Your task to perform on an android device: What's on the menu at Burger King? Image 0: 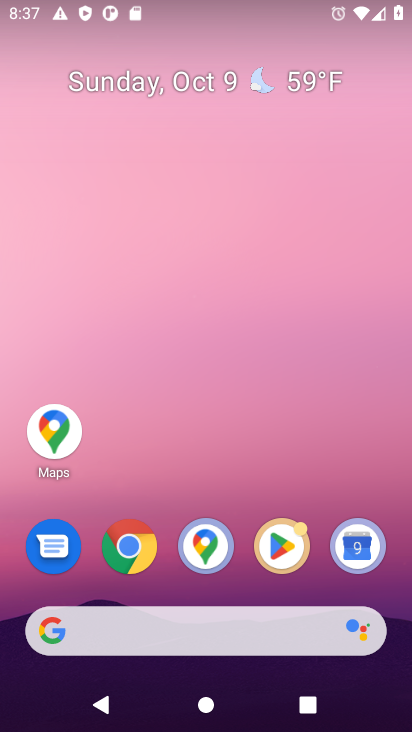
Step 0: click (139, 545)
Your task to perform on an android device: What's on the menu at Burger King? Image 1: 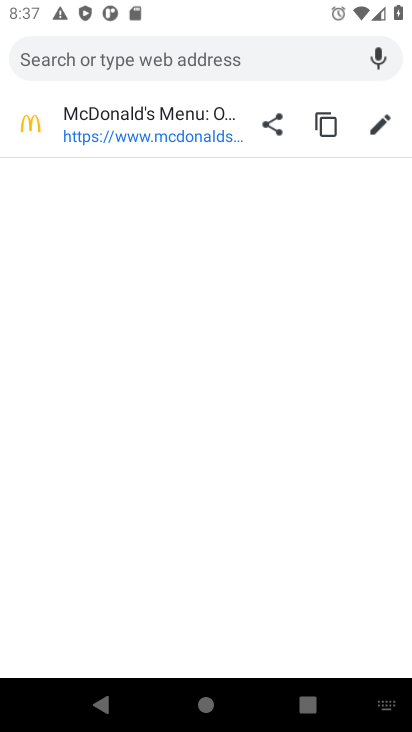
Step 1: click (143, 58)
Your task to perform on an android device: What's on the menu at Burger King? Image 2: 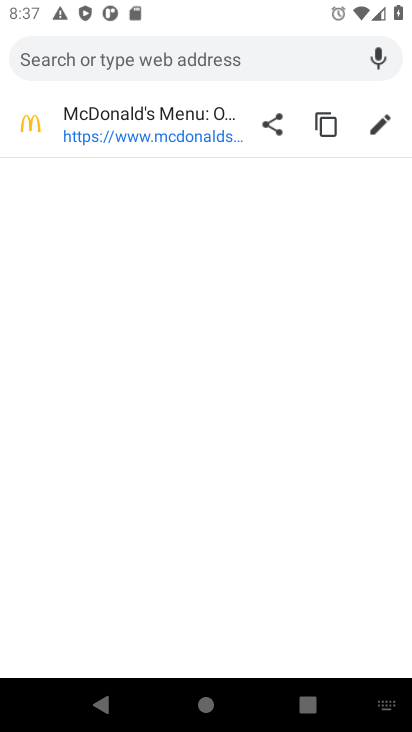
Step 2: type "burger king menu"
Your task to perform on an android device: What's on the menu at Burger King? Image 3: 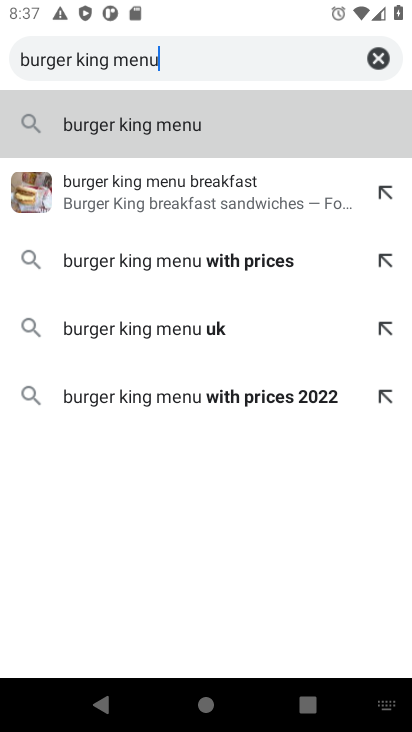
Step 3: press enter
Your task to perform on an android device: What's on the menu at Burger King? Image 4: 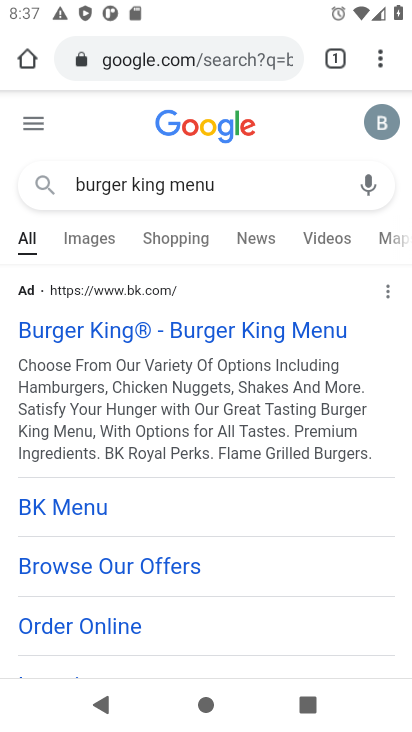
Step 4: click (278, 330)
Your task to perform on an android device: What's on the menu at Burger King? Image 5: 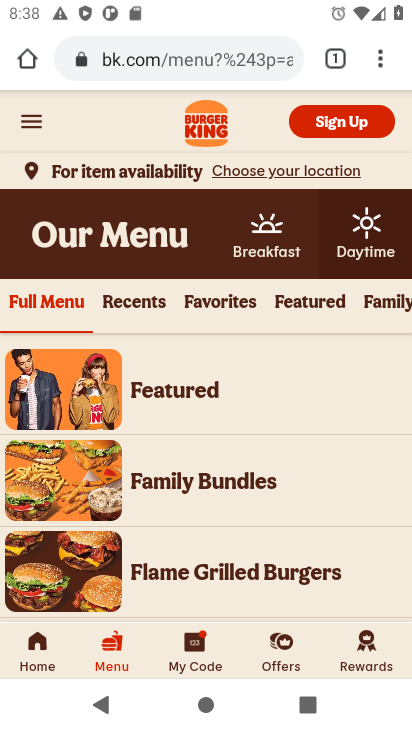
Step 5: drag from (220, 544) to (212, 360)
Your task to perform on an android device: What's on the menu at Burger King? Image 6: 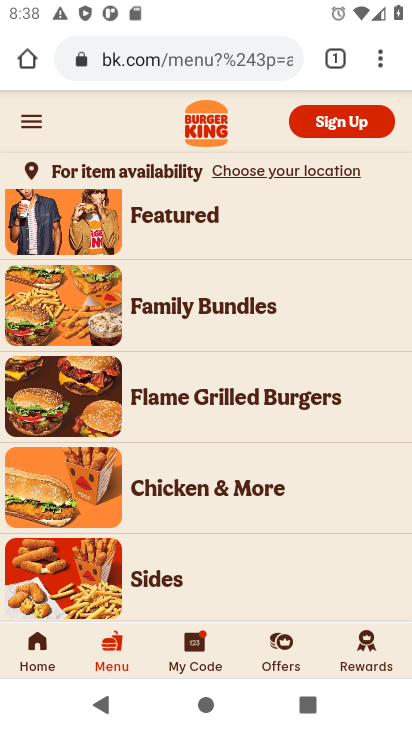
Step 6: click (231, 235)
Your task to perform on an android device: What's on the menu at Burger King? Image 7: 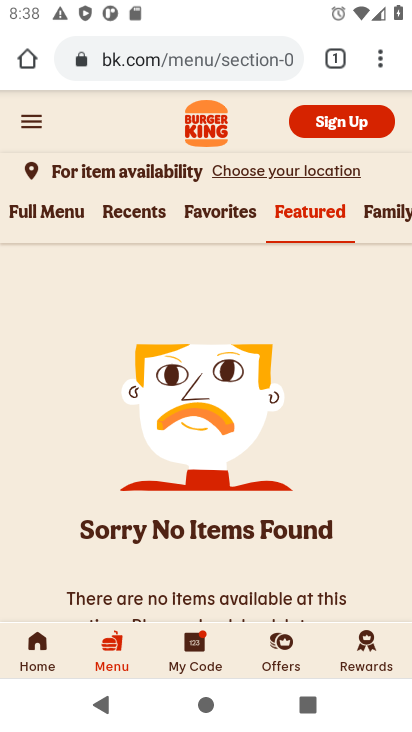
Step 7: press back button
Your task to perform on an android device: What's on the menu at Burger King? Image 8: 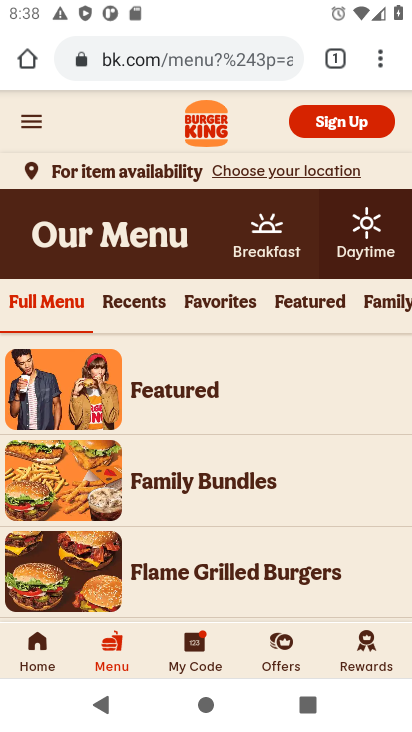
Step 8: click (293, 487)
Your task to perform on an android device: What's on the menu at Burger King? Image 9: 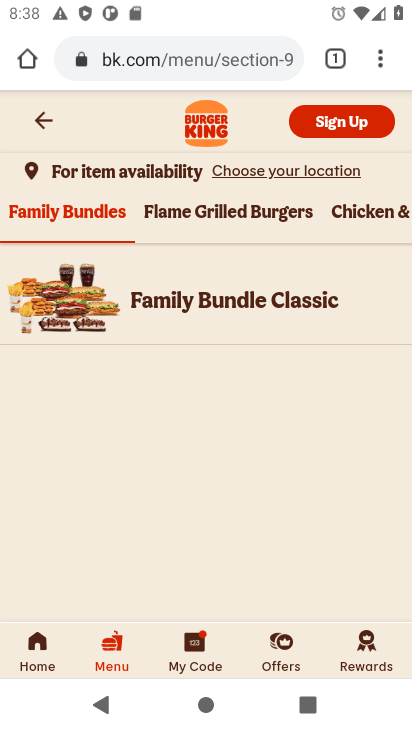
Step 9: press back button
Your task to perform on an android device: What's on the menu at Burger King? Image 10: 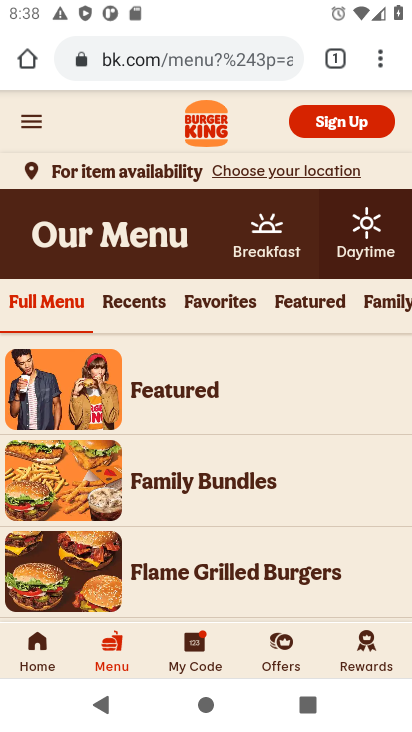
Step 10: drag from (200, 571) to (165, 272)
Your task to perform on an android device: What's on the menu at Burger King? Image 11: 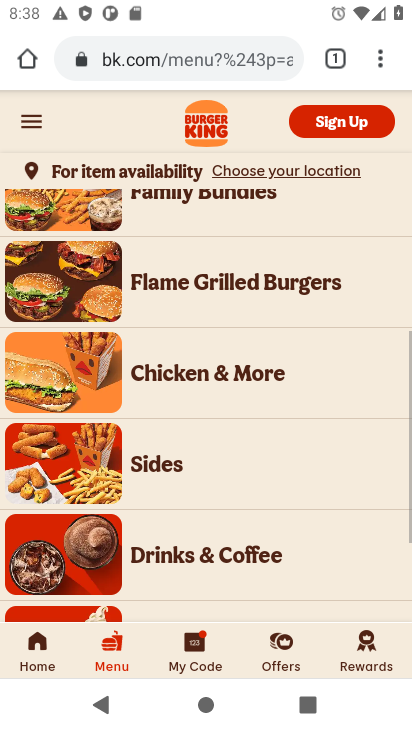
Step 11: drag from (194, 486) to (179, 264)
Your task to perform on an android device: What's on the menu at Burger King? Image 12: 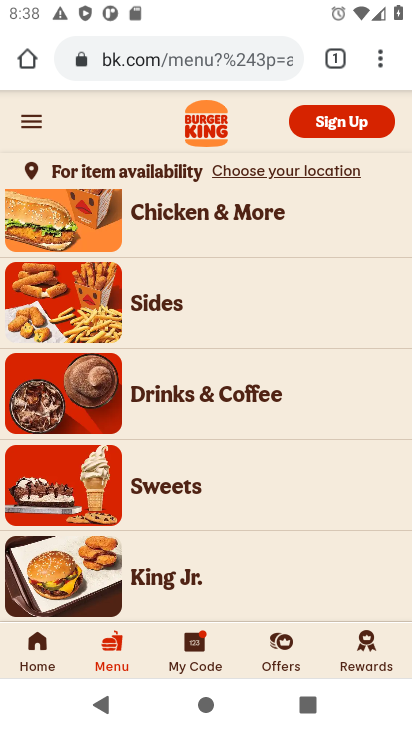
Step 12: drag from (229, 518) to (233, 313)
Your task to perform on an android device: What's on the menu at Burger King? Image 13: 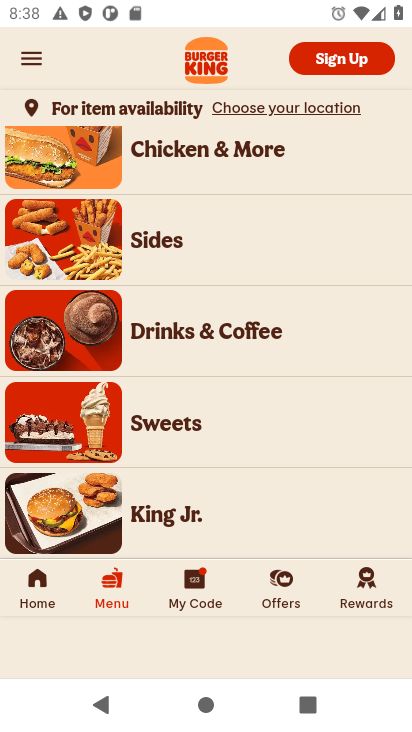
Step 13: drag from (229, 290) to (251, 520)
Your task to perform on an android device: What's on the menu at Burger King? Image 14: 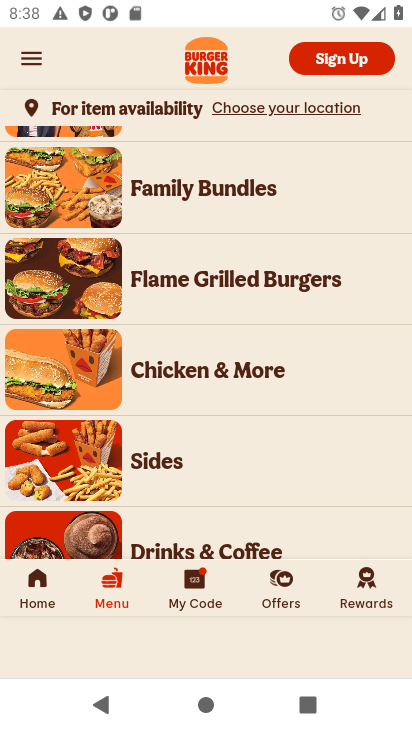
Step 14: drag from (246, 257) to (251, 377)
Your task to perform on an android device: What's on the menu at Burger King? Image 15: 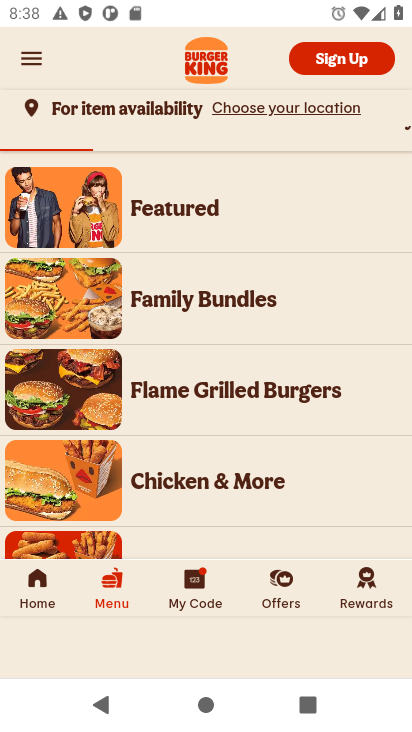
Step 15: click (231, 405)
Your task to perform on an android device: What's on the menu at Burger King? Image 16: 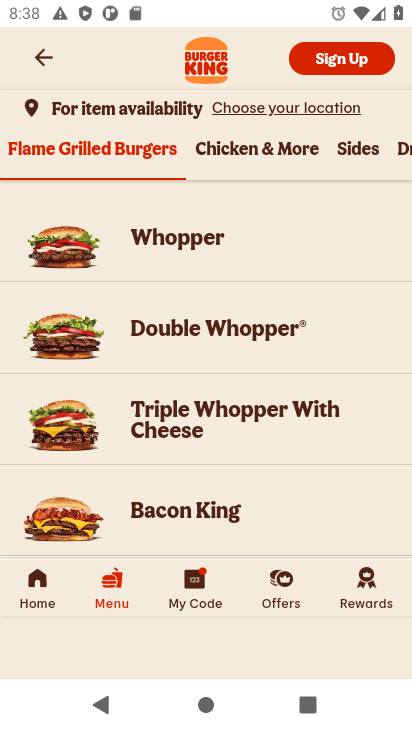
Step 16: task complete